Your task to perform on an android device: Open the Play Movies app and select the watchlist tab. Image 0: 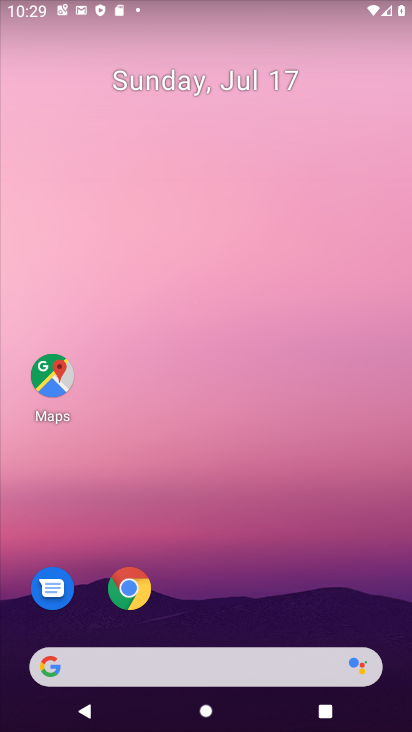
Step 0: press home button
Your task to perform on an android device: Open the Play Movies app and select the watchlist tab. Image 1: 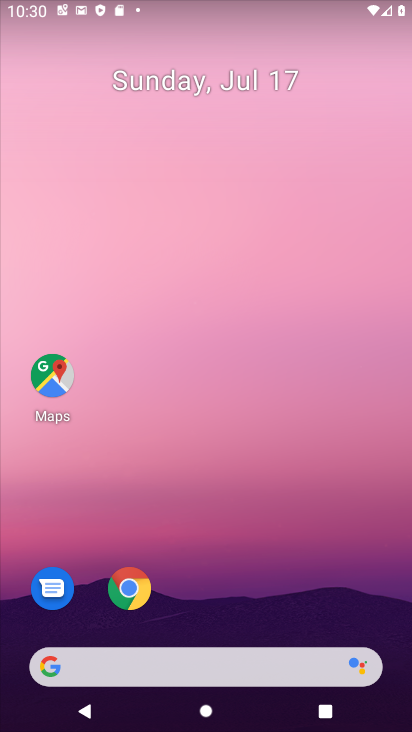
Step 1: drag from (325, 515) to (334, 182)
Your task to perform on an android device: Open the Play Movies app and select the watchlist tab. Image 2: 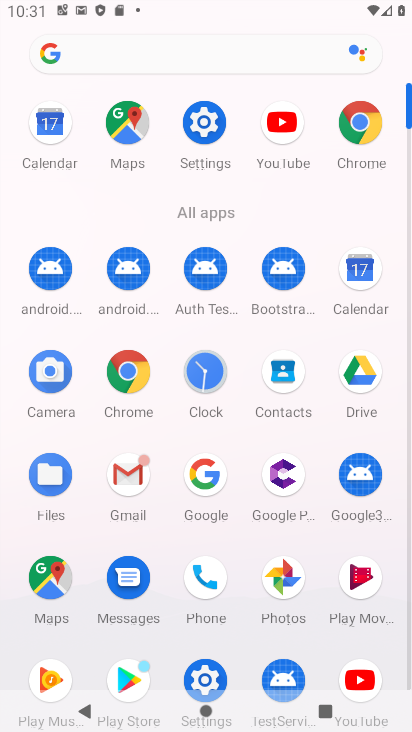
Step 2: click (344, 572)
Your task to perform on an android device: Open the Play Movies app and select the watchlist tab. Image 3: 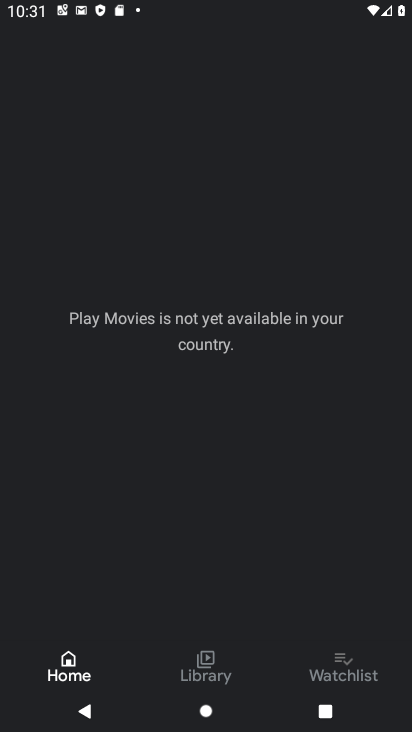
Step 3: click (298, 675)
Your task to perform on an android device: Open the Play Movies app and select the watchlist tab. Image 4: 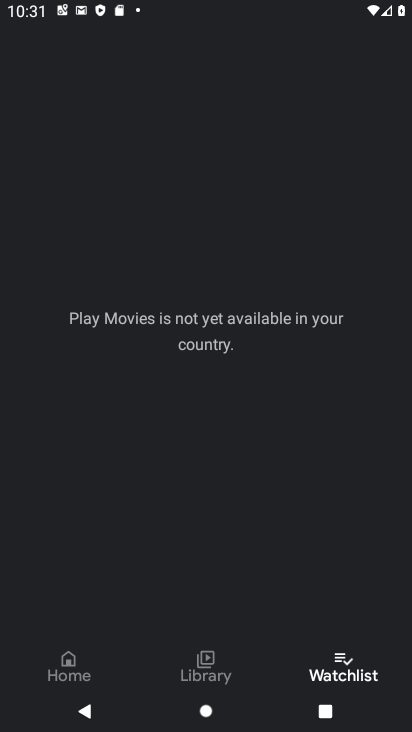
Step 4: task complete